Your task to perform on an android device: turn on airplane mode Image 0: 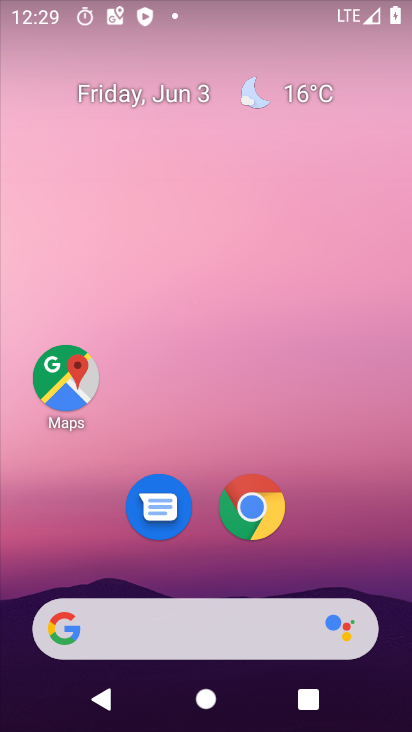
Step 0: drag from (402, 633) to (217, 40)
Your task to perform on an android device: turn on airplane mode Image 1: 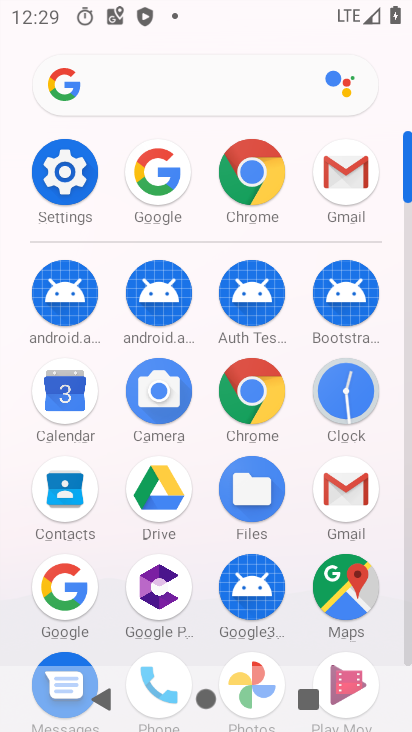
Step 1: drag from (239, 6) to (265, 528)
Your task to perform on an android device: turn on airplane mode Image 2: 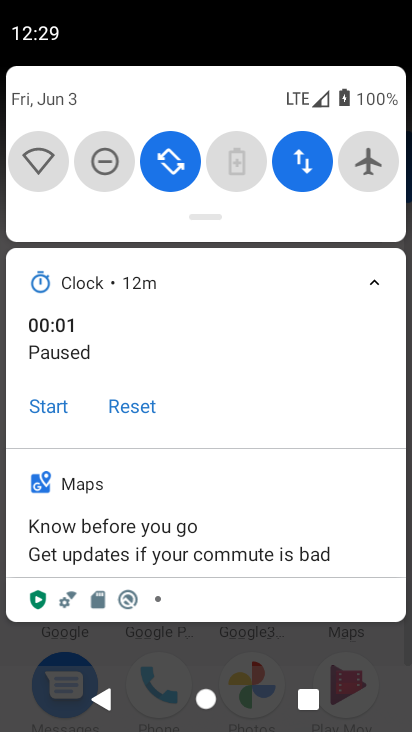
Step 2: click (381, 150)
Your task to perform on an android device: turn on airplane mode Image 3: 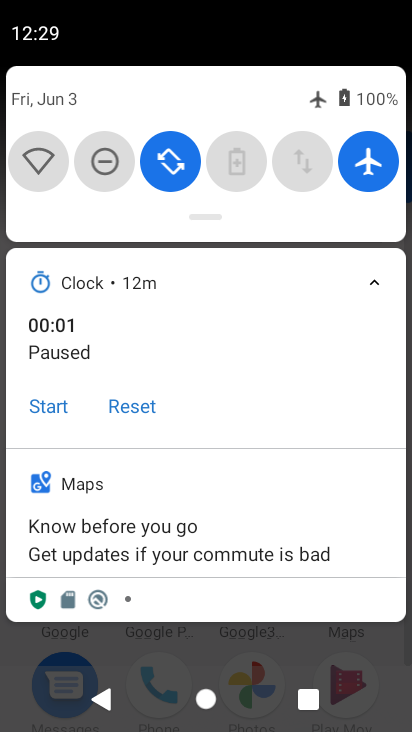
Step 3: task complete